Your task to perform on an android device: check google app version Image 0: 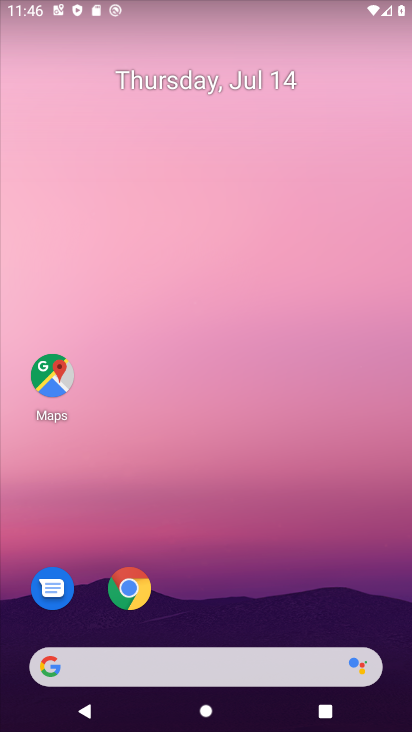
Step 0: drag from (245, 709) to (253, 192)
Your task to perform on an android device: check google app version Image 1: 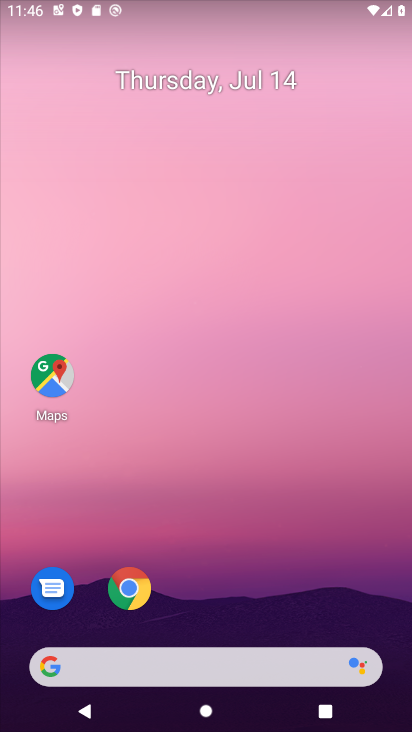
Step 1: drag from (263, 693) to (280, 29)
Your task to perform on an android device: check google app version Image 2: 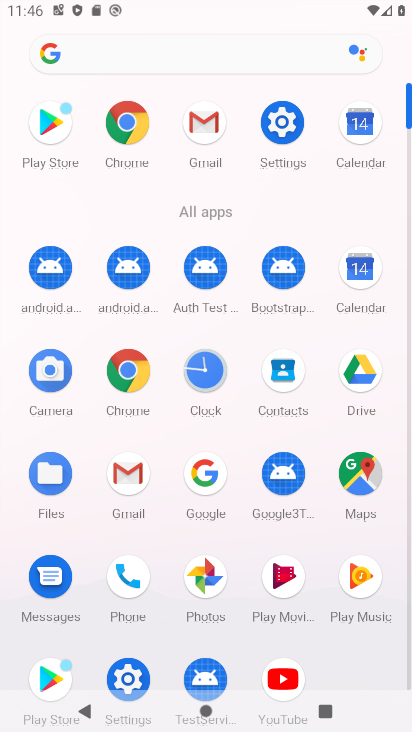
Step 2: click (195, 481)
Your task to perform on an android device: check google app version Image 3: 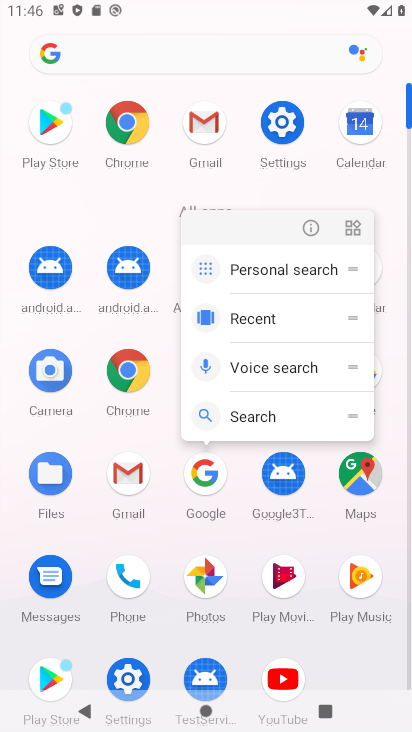
Step 3: click (307, 225)
Your task to perform on an android device: check google app version Image 4: 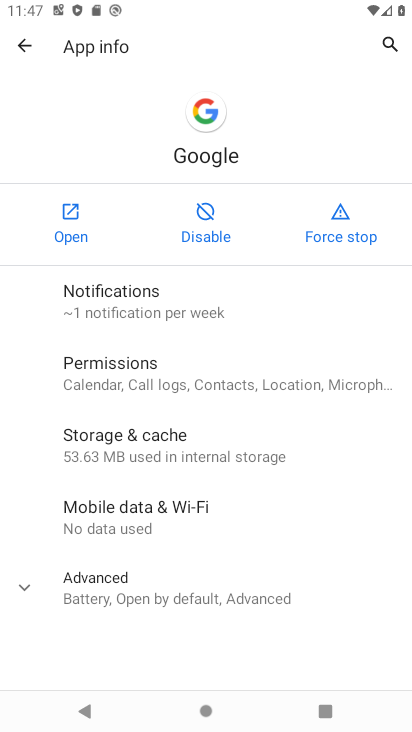
Step 4: drag from (335, 598) to (362, 213)
Your task to perform on an android device: check google app version Image 5: 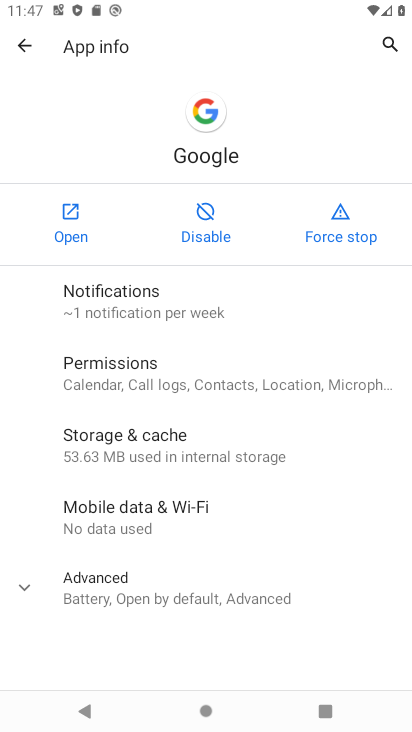
Step 5: click (160, 590)
Your task to perform on an android device: check google app version Image 6: 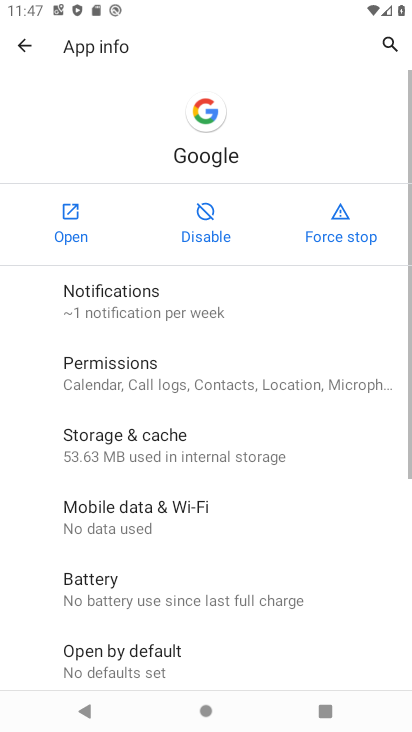
Step 6: task complete